Your task to perform on an android device: add a label to a message in the gmail app Image 0: 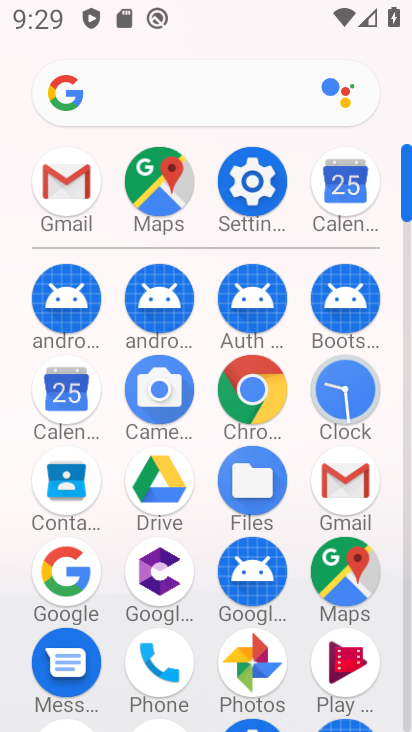
Step 0: click (350, 477)
Your task to perform on an android device: add a label to a message in the gmail app Image 1: 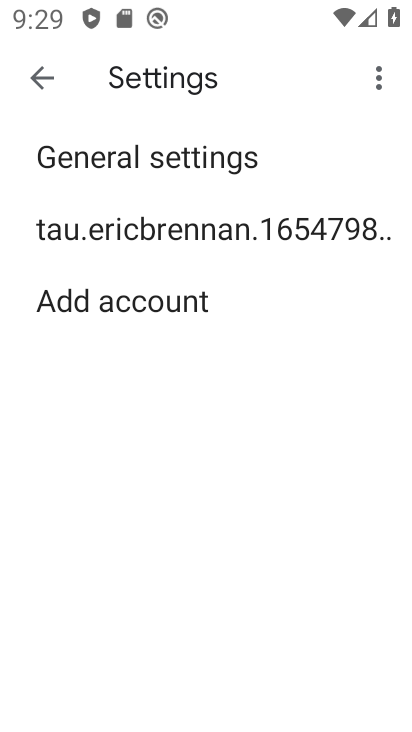
Step 1: press back button
Your task to perform on an android device: add a label to a message in the gmail app Image 2: 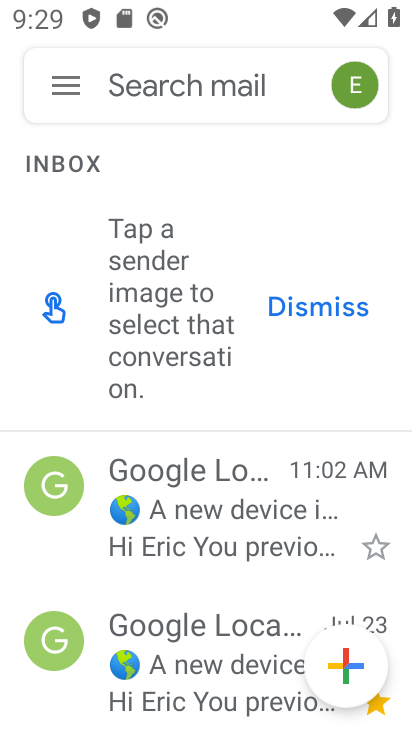
Step 2: click (246, 502)
Your task to perform on an android device: add a label to a message in the gmail app Image 3: 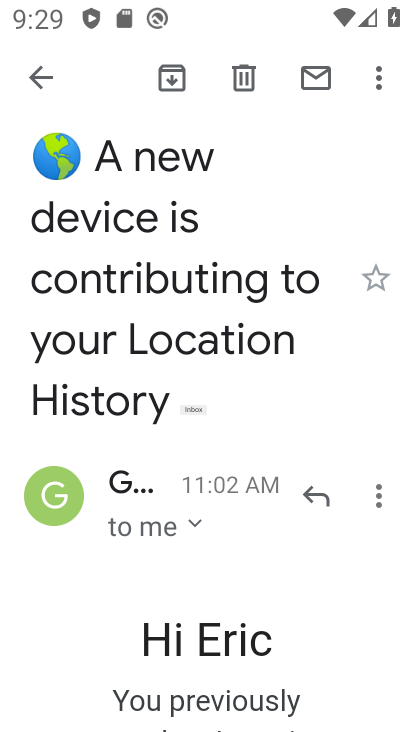
Step 3: click (193, 410)
Your task to perform on an android device: add a label to a message in the gmail app Image 4: 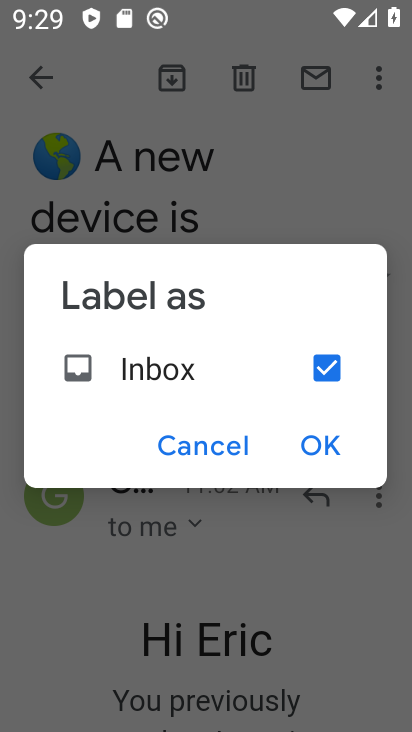
Step 4: click (223, 456)
Your task to perform on an android device: add a label to a message in the gmail app Image 5: 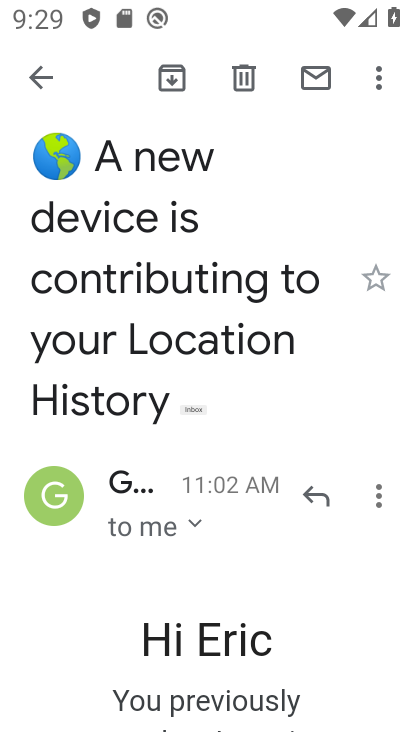
Step 5: click (39, 71)
Your task to perform on an android device: add a label to a message in the gmail app Image 6: 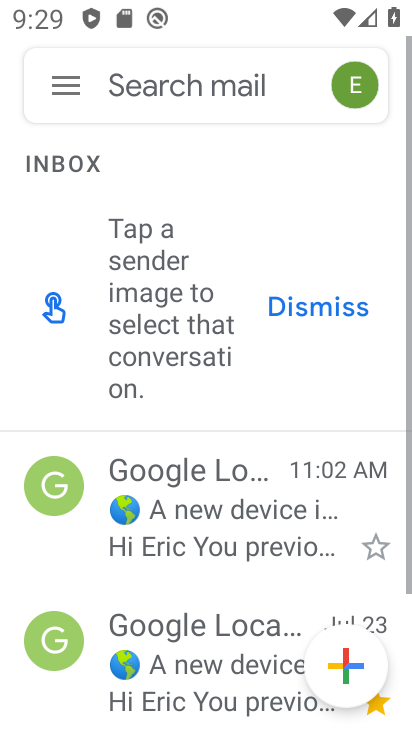
Step 6: drag from (234, 394) to (258, 263)
Your task to perform on an android device: add a label to a message in the gmail app Image 7: 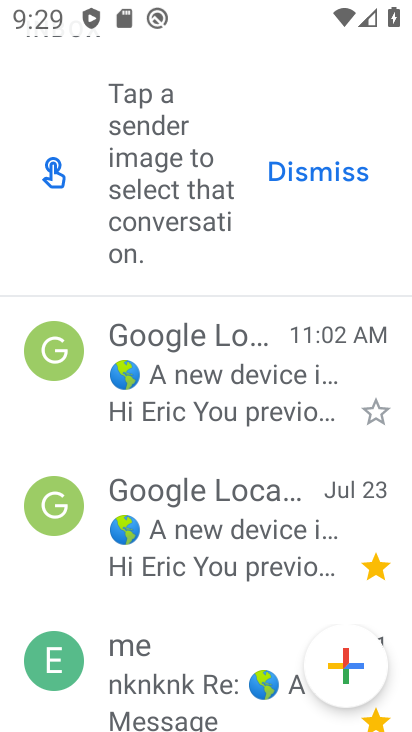
Step 7: drag from (253, 373) to (260, 189)
Your task to perform on an android device: add a label to a message in the gmail app Image 8: 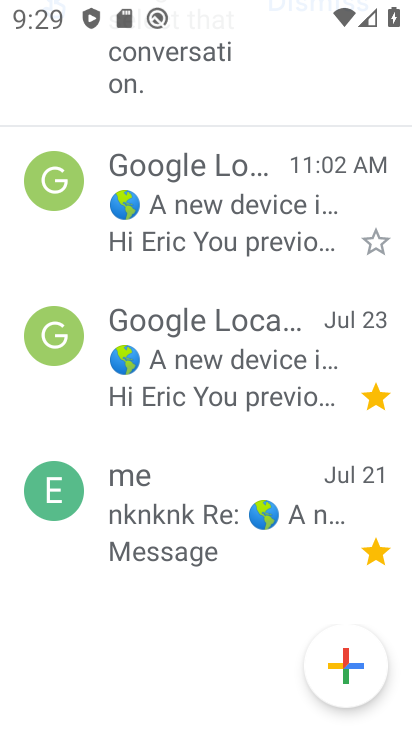
Step 8: click (199, 475)
Your task to perform on an android device: add a label to a message in the gmail app Image 9: 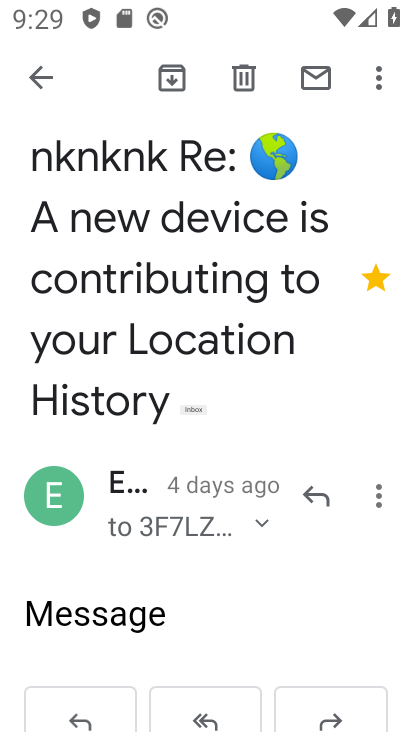
Step 9: click (201, 410)
Your task to perform on an android device: add a label to a message in the gmail app Image 10: 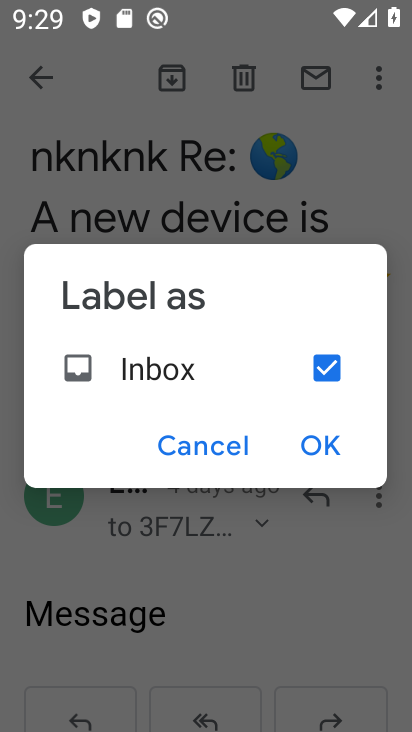
Step 10: click (312, 448)
Your task to perform on an android device: add a label to a message in the gmail app Image 11: 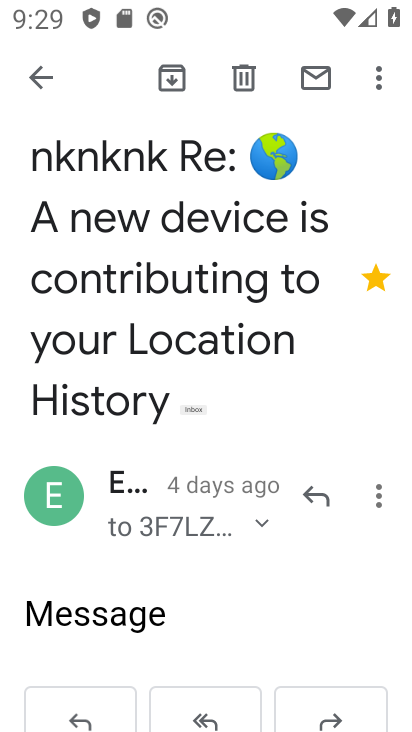
Step 11: click (381, 494)
Your task to perform on an android device: add a label to a message in the gmail app Image 12: 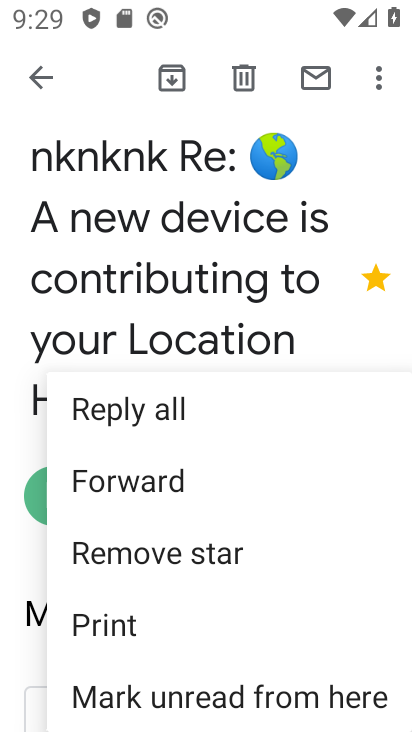
Step 12: click (304, 338)
Your task to perform on an android device: add a label to a message in the gmail app Image 13: 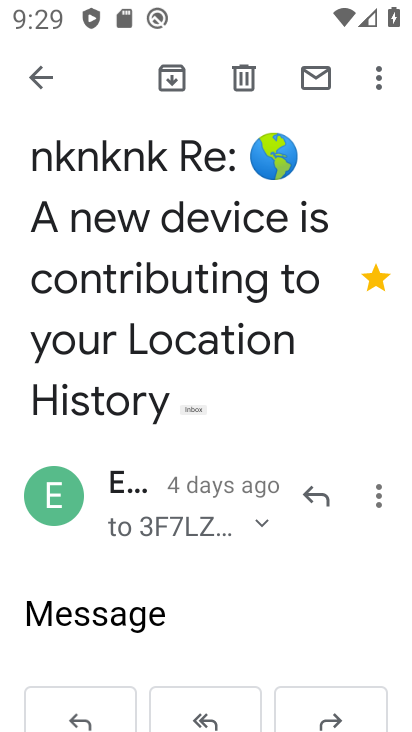
Step 13: click (381, 66)
Your task to perform on an android device: add a label to a message in the gmail app Image 14: 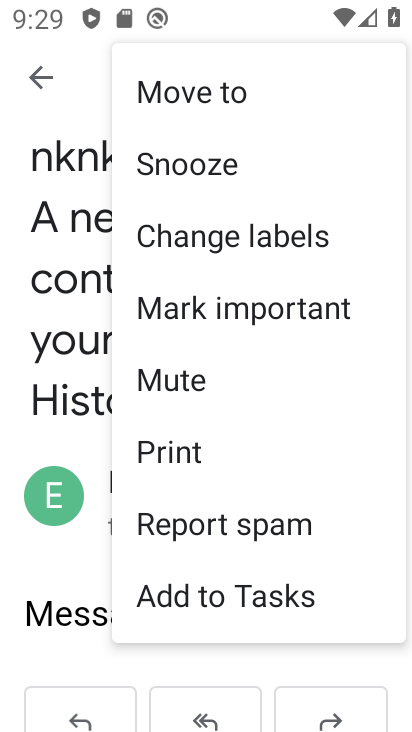
Step 14: click (36, 74)
Your task to perform on an android device: add a label to a message in the gmail app Image 15: 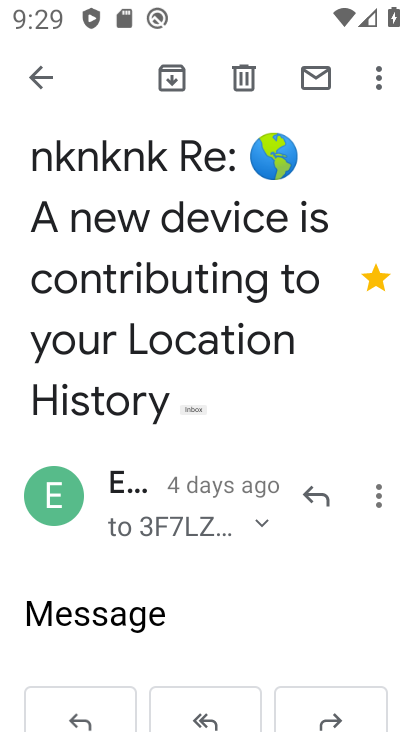
Step 15: click (36, 74)
Your task to perform on an android device: add a label to a message in the gmail app Image 16: 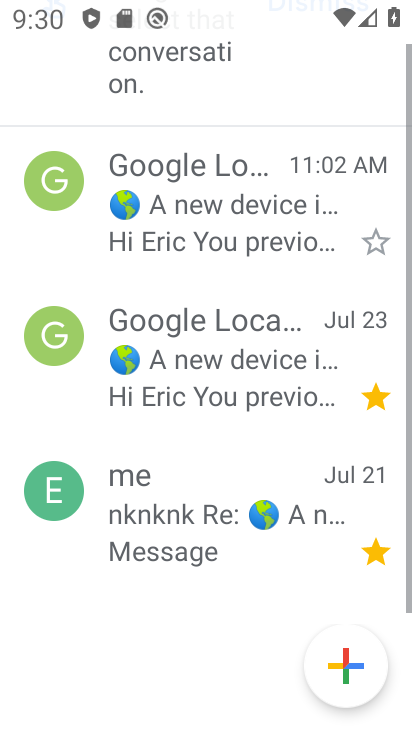
Step 16: click (202, 360)
Your task to perform on an android device: add a label to a message in the gmail app Image 17: 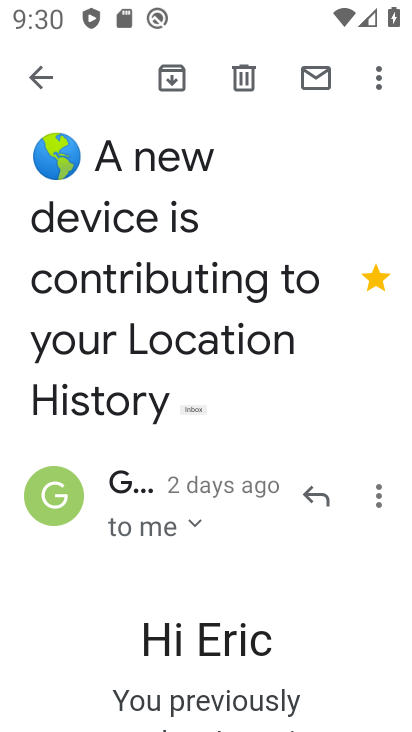
Step 17: click (199, 407)
Your task to perform on an android device: add a label to a message in the gmail app Image 18: 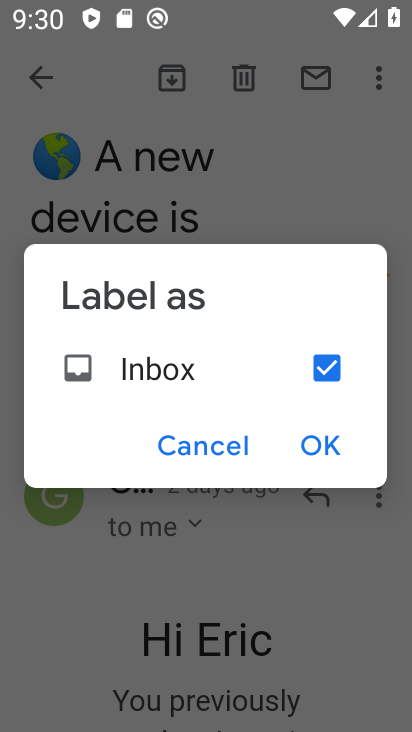
Step 18: click (232, 444)
Your task to perform on an android device: add a label to a message in the gmail app Image 19: 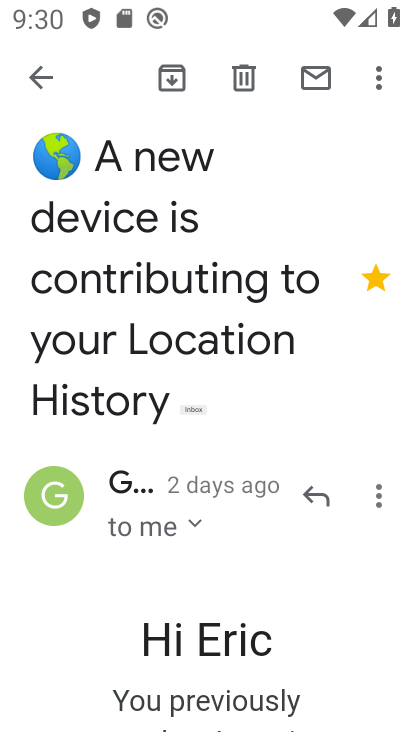
Step 19: task complete